Your task to perform on an android device: toggle data saver in the chrome app Image 0: 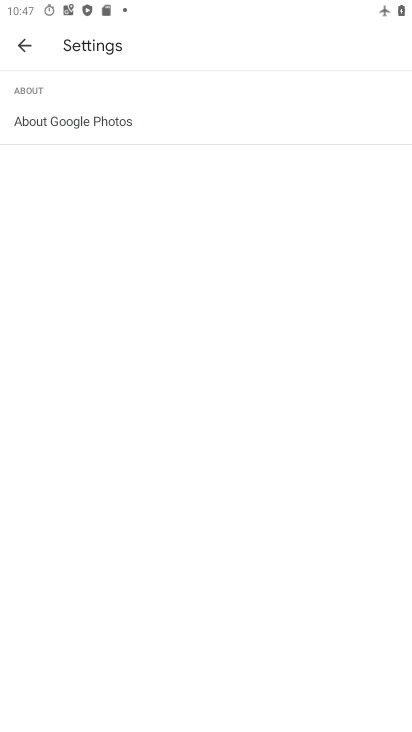
Step 0: click (127, 626)
Your task to perform on an android device: toggle data saver in the chrome app Image 1: 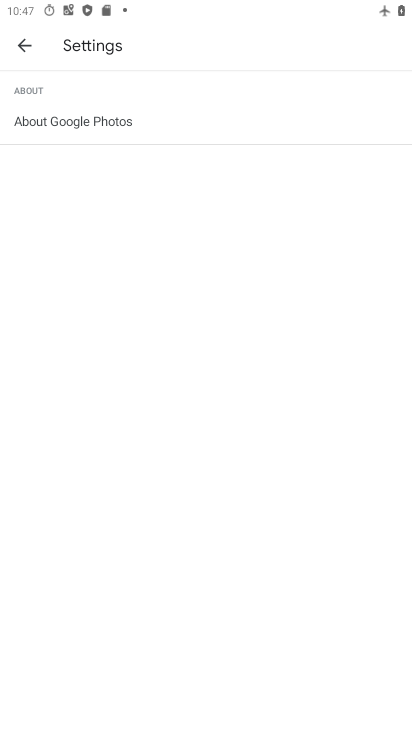
Step 1: press home button
Your task to perform on an android device: toggle data saver in the chrome app Image 2: 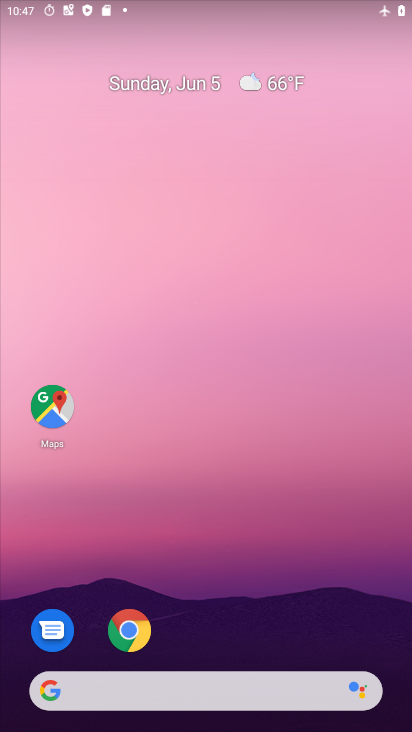
Step 2: click (134, 634)
Your task to perform on an android device: toggle data saver in the chrome app Image 3: 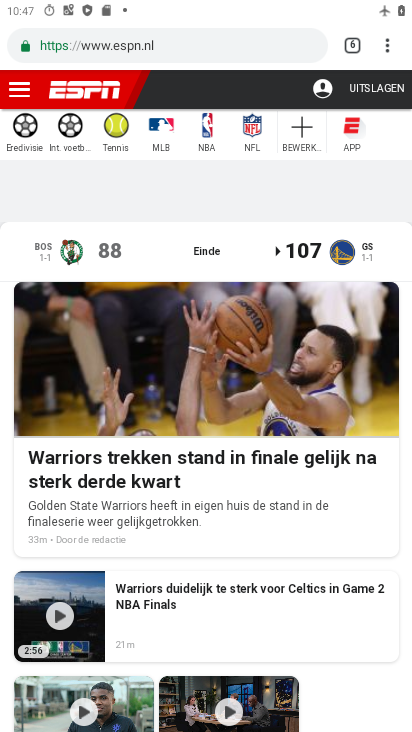
Step 3: click (388, 48)
Your task to perform on an android device: toggle data saver in the chrome app Image 4: 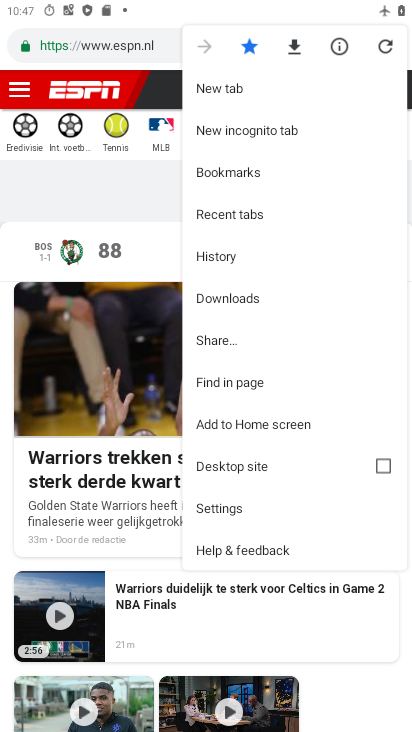
Step 4: click (228, 508)
Your task to perform on an android device: toggle data saver in the chrome app Image 5: 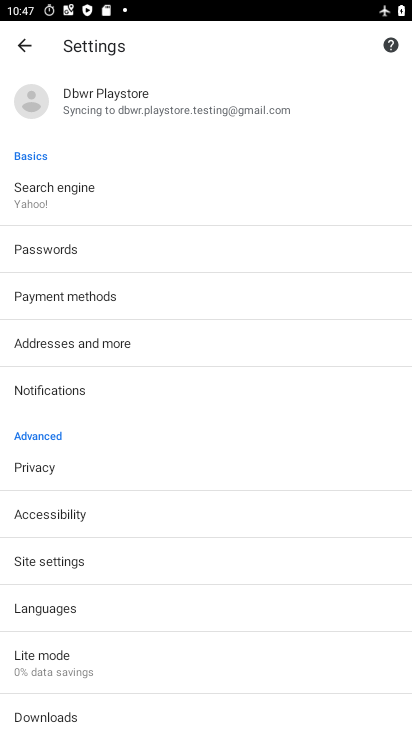
Step 5: click (48, 658)
Your task to perform on an android device: toggle data saver in the chrome app Image 6: 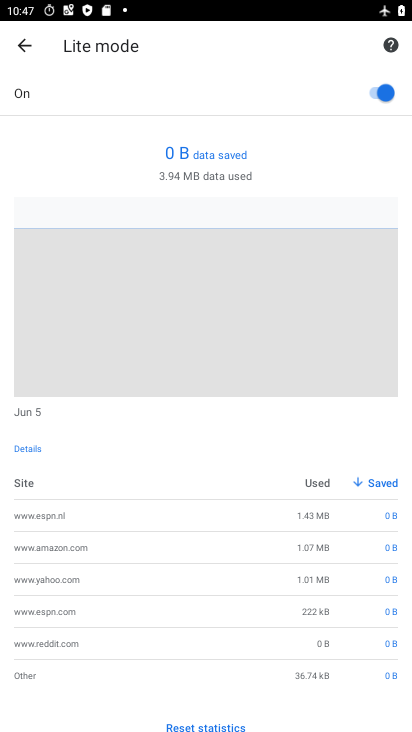
Step 6: click (377, 92)
Your task to perform on an android device: toggle data saver in the chrome app Image 7: 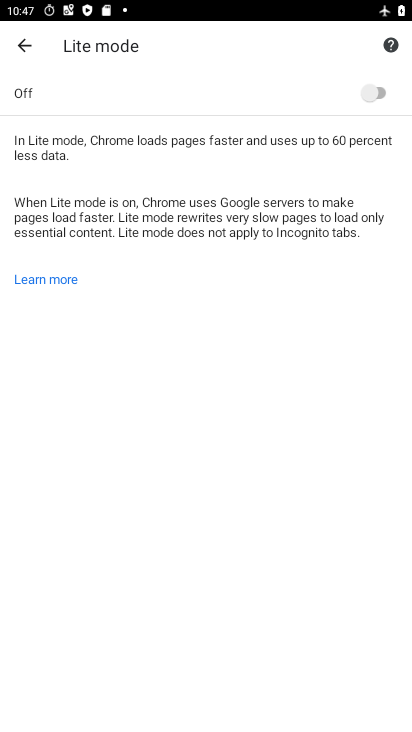
Step 7: task complete